Your task to perform on an android device: open chrome privacy settings Image 0: 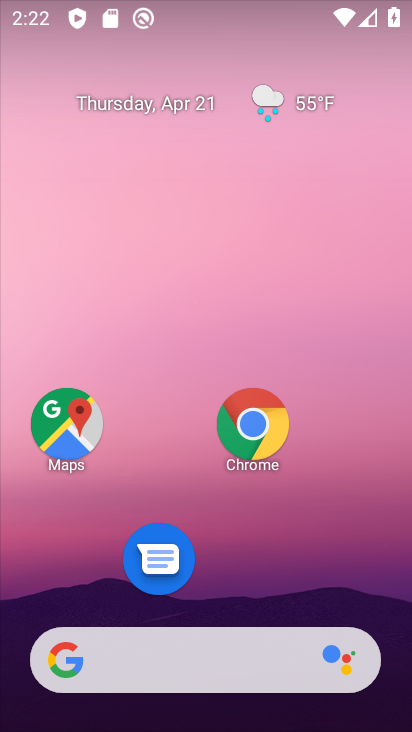
Step 0: click (259, 425)
Your task to perform on an android device: open chrome privacy settings Image 1: 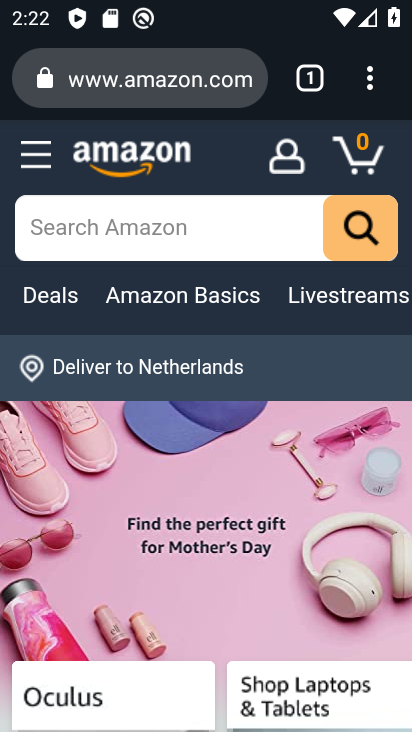
Step 1: click (369, 86)
Your task to perform on an android device: open chrome privacy settings Image 2: 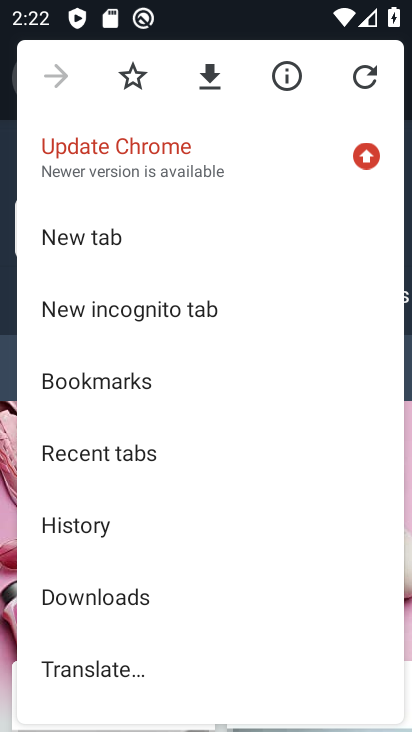
Step 2: drag from (199, 581) to (225, 217)
Your task to perform on an android device: open chrome privacy settings Image 3: 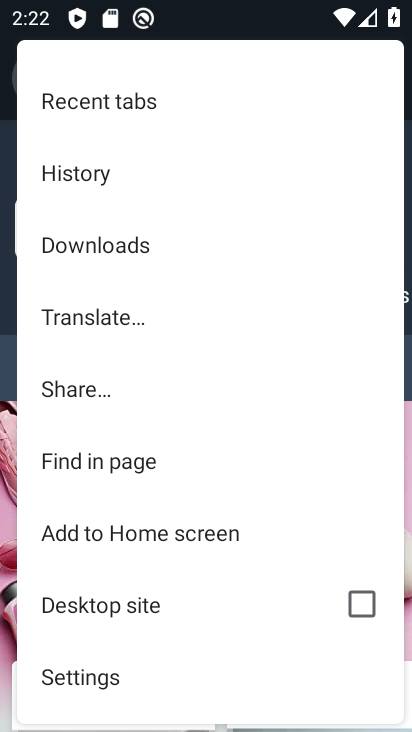
Step 3: click (108, 678)
Your task to perform on an android device: open chrome privacy settings Image 4: 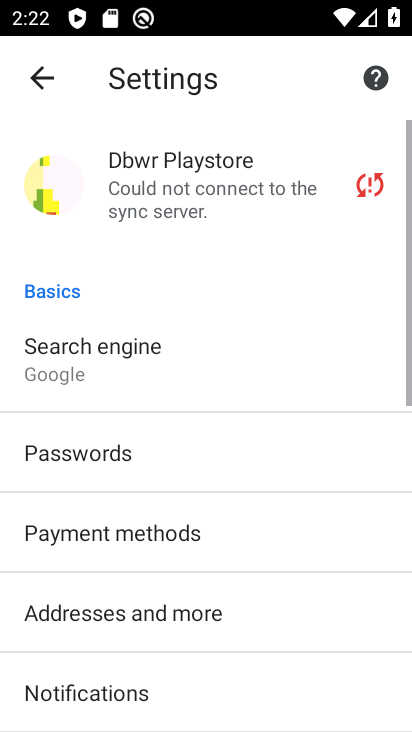
Step 4: drag from (198, 520) to (224, 146)
Your task to perform on an android device: open chrome privacy settings Image 5: 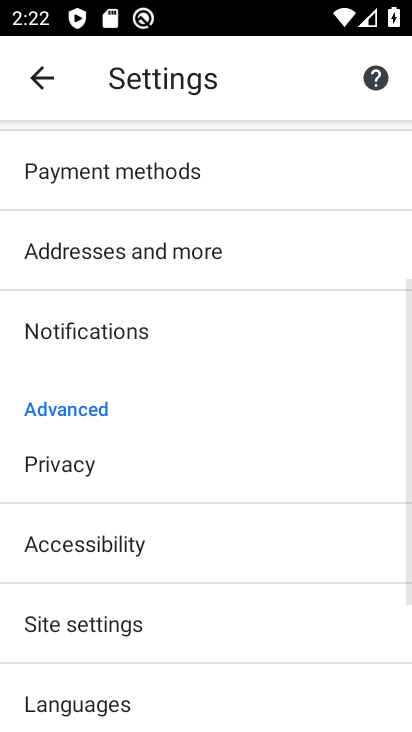
Step 5: click (102, 464)
Your task to perform on an android device: open chrome privacy settings Image 6: 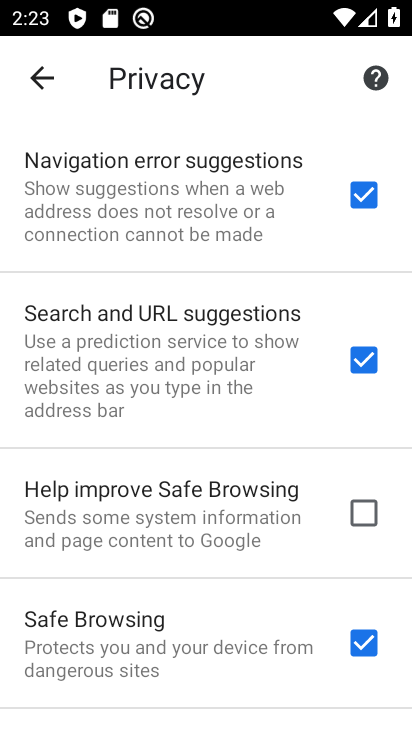
Step 6: task complete